Your task to perform on an android device: check the backup settings in the google photos Image 0: 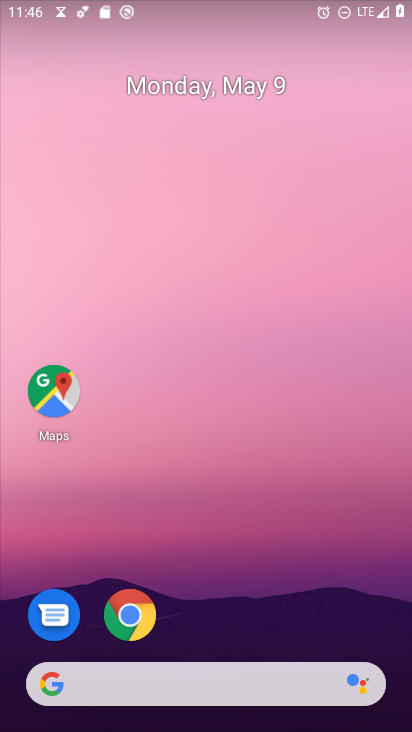
Step 0: drag from (210, 727) to (196, 188)
Your task to perform on an android device: check the backup settings in the google photos Image 1: 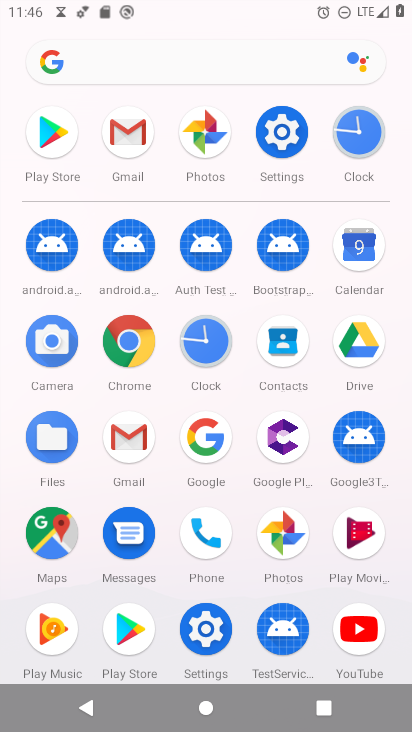
Step 1: click (277, 530)
Your task to perform on an android device: check the backup settings in the google photos Image 2: 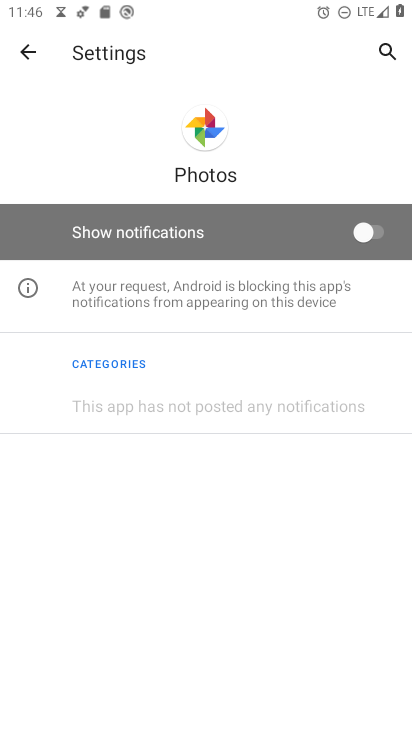
Step 2: click (31, 49)
Your task to perform on an android device: check the backup settings in the google photos Image 3: 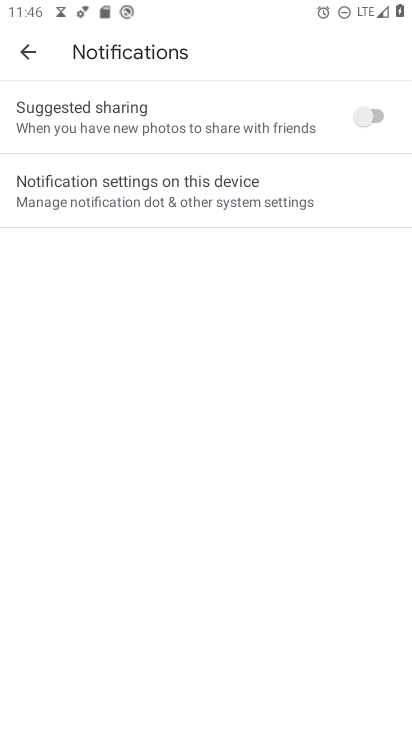
Step 3: click (23, 50)
Your task to perform on an android device: check the backup settings in the google photos Image 4: 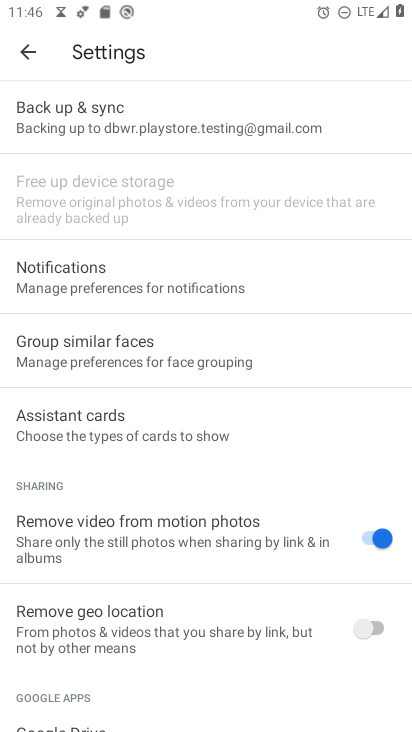
Step 4: click (83, 112)
Your task to perform on an android device: check the backup settings in the google photos Image 5: 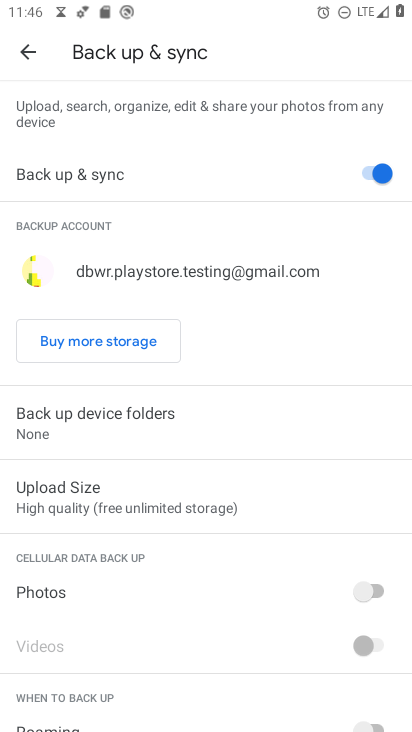
Step 5: task complete